Your task to perform on an android device: Go to Maps Image 0: 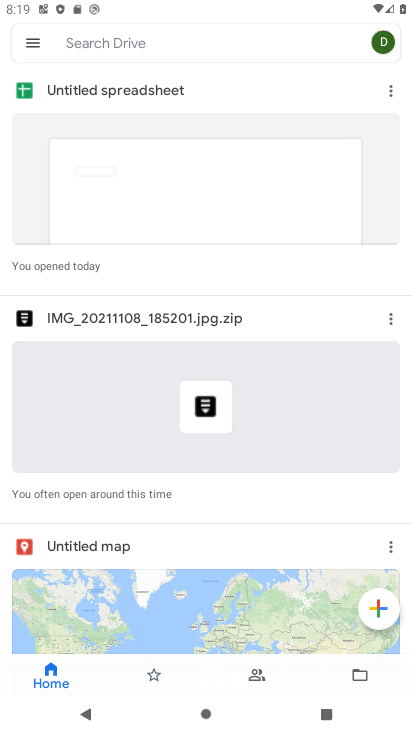
Step 0: press home button
Your task to perform on an android device: Go to Maps Image 1: 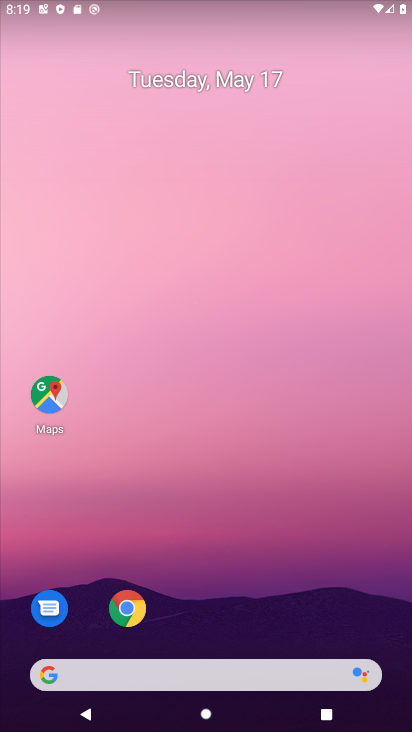
Step 1: drag from (335, 611) to (329, 205)
Your task to perform on an android device: Go to Maps Image 2: 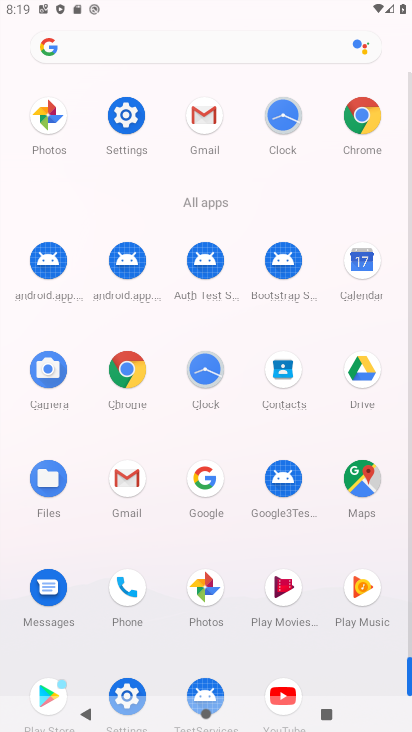
Step 2: click (365, 482)
Your task to perform on an android device: Go to Maps Image 3: 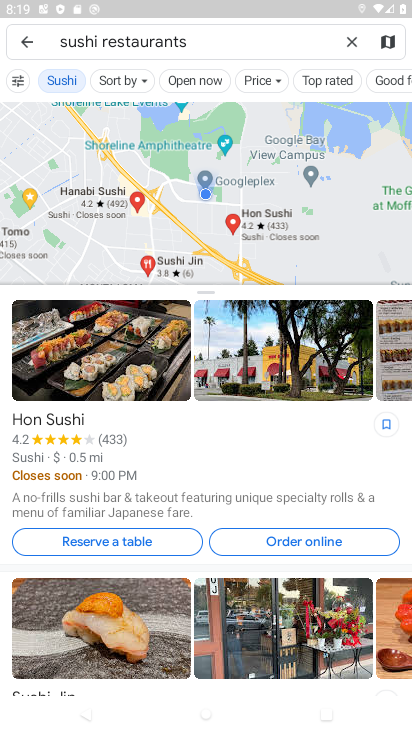
Step 3: task complete